Your task to perform on an android device: Open Google Maps and go to "Timeline" Image 0: 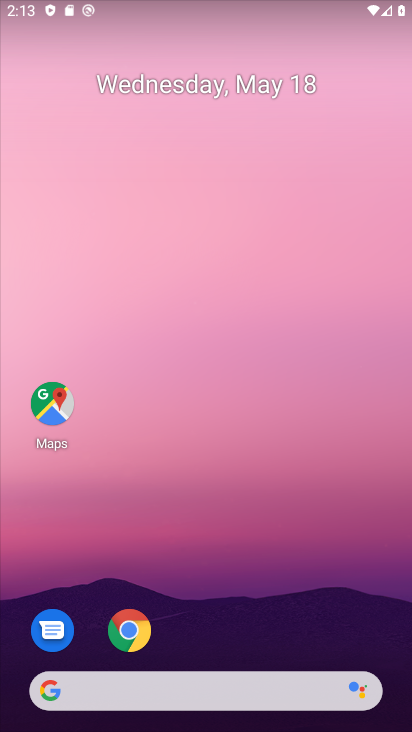
Step 0: drag from (210, 645) to (242, 95)
Your task to perform on an android device: Open Google Maps and go to "Timeline" Image 1: 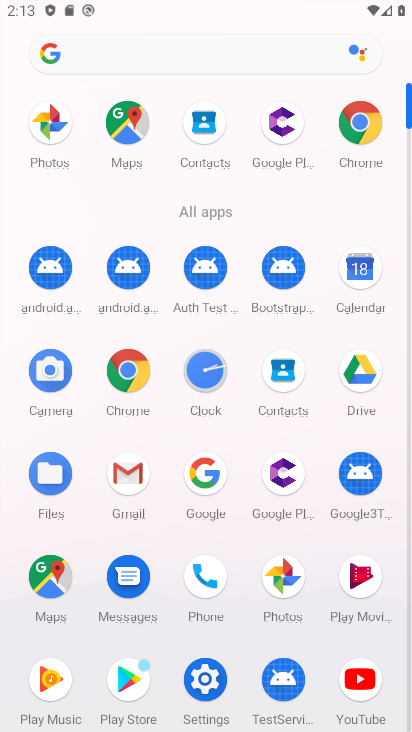
Step 1: click (129, 115)
Your task to perform on an android device: Open Google Maps and go to "Timeline" Image 2: 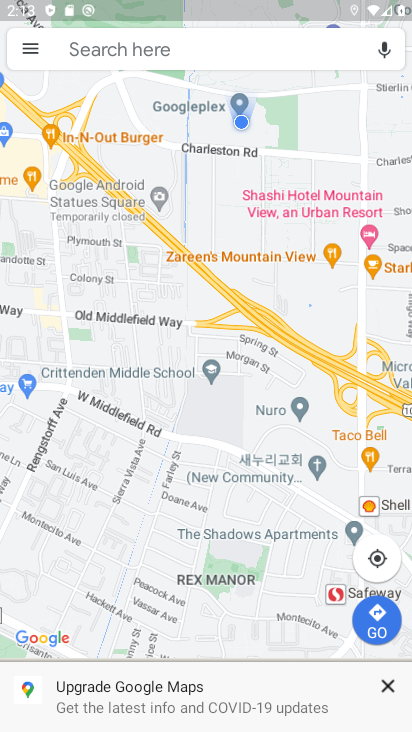
Step 2: click (26, 50)
Your task to perform on an android device: Open Google Maps and go to "Timeline" Image 3: 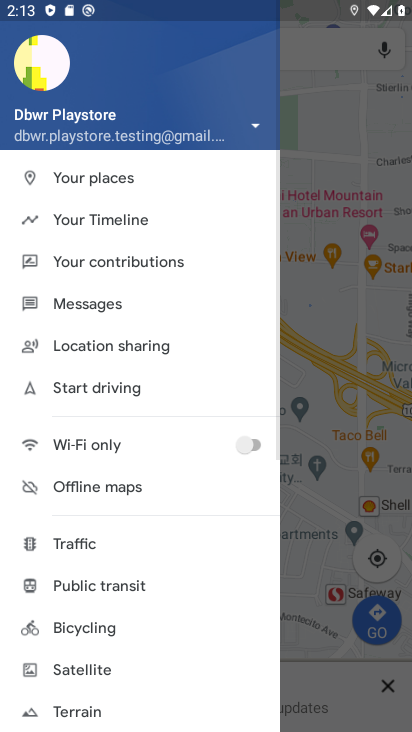
Step 3: click (146, 218)
Your task to perform on an android device: Open Google Maps and go to "Timeline" Image 4: 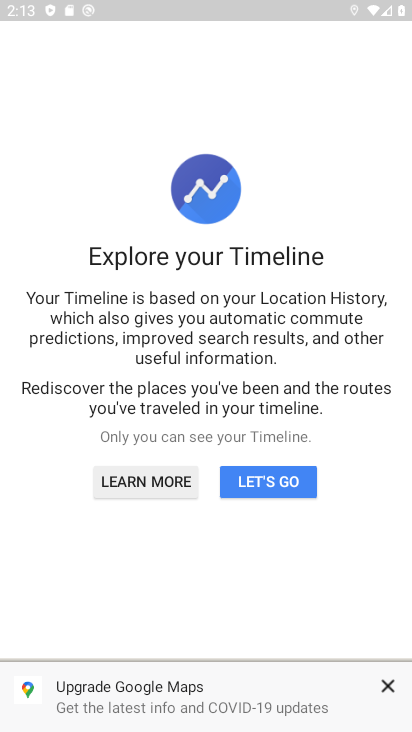
Step 4: click (276, 477)
Your task to perform on an android device: Open Google Maps and go to "Timeline" Image 5: 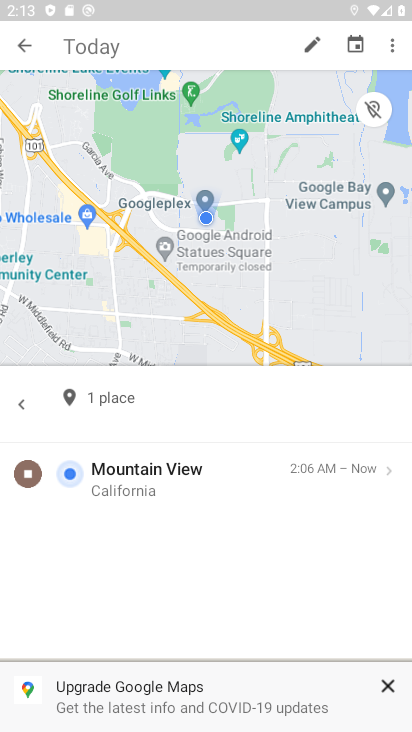
Step 5: task complete